Your task to perform on an android device: visit the assistant section in the google photos Image 0: 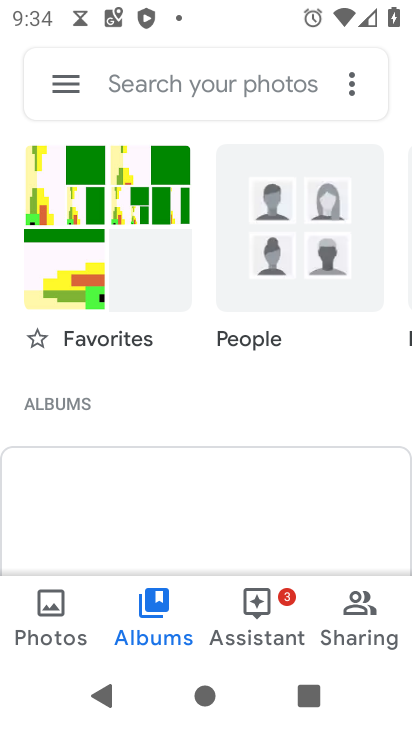
Step 0: click (247, 623)
Your task to perform on an android device: visit the assistant section in the google photos Image 1: 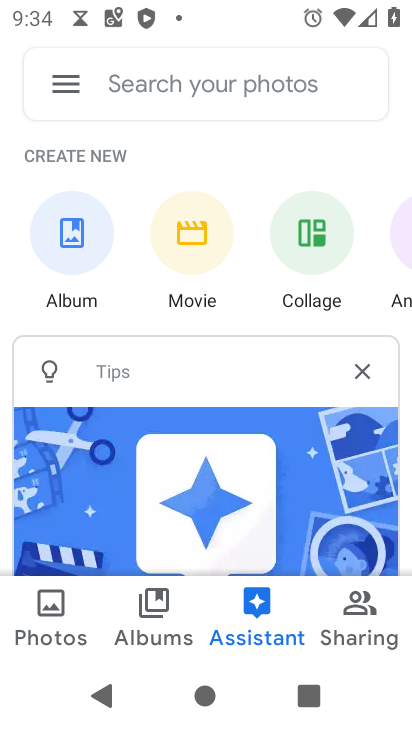
Step 1: task complete